Your task to perform on an android device: Search for Italian restaurants on Maps Image 0: 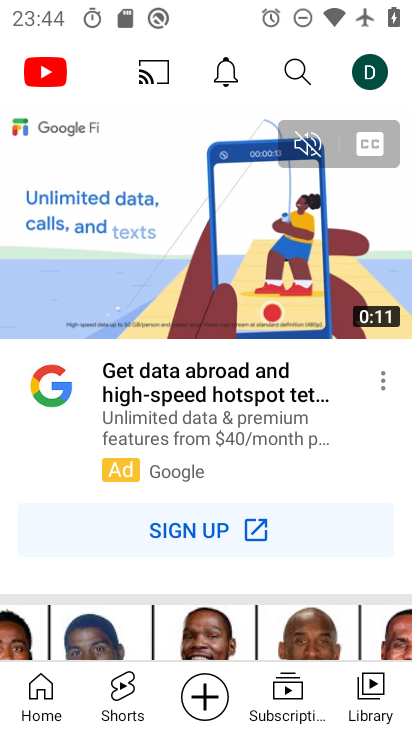
Step 0: press home button
Your task to perform on an android device: Search for Italian restaurants on Maps Image 1: 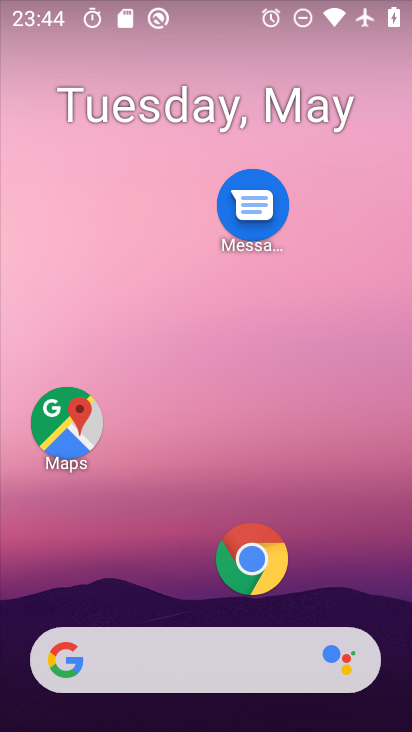
Step 1: click (76, 420)
Your task to perform on an android device: Search for Italian restaurants on Maps Image 2: 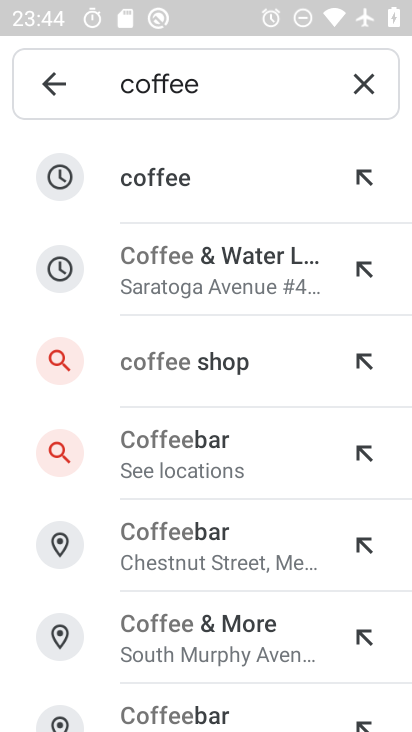
Step 2: click (362, 85)
Your task to perform on an android device: Search for Italian restaurants on Maps Image 3: 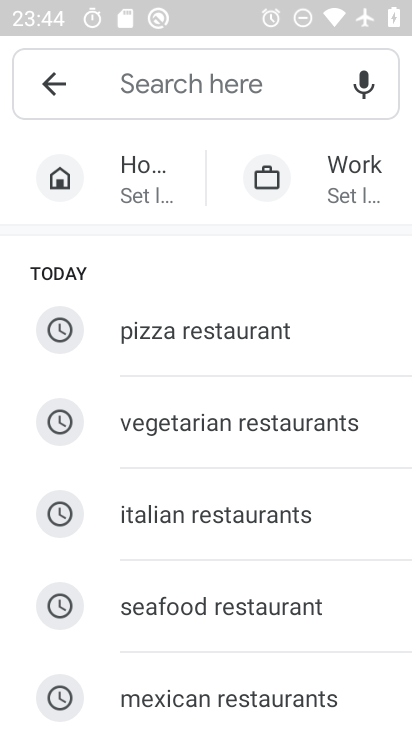
Step 3: click (220, 508)
Your task to perform on an android device: Search for Italian restaurants on Maps Image 4: 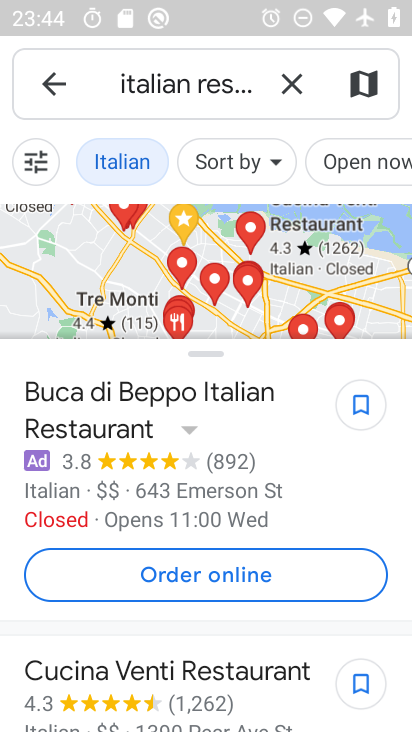
Step 4: task complete